Your task to perform on an android device: Show me popular videos on Youtube Image 0: 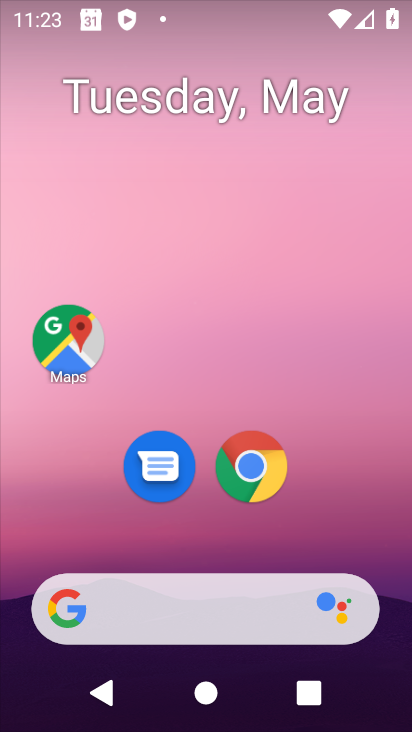
Step 0: drag from (210, 558) to (291, 44)
Your task to perform on an android device: Show me popular videos on Youtube Image 1: 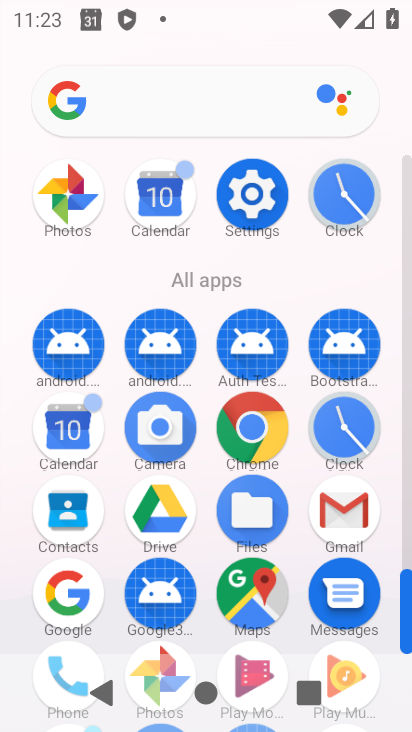
Step 1: drag from (197, 638) to (304, 77)
Your task to perform on an android device: Show me popular videos on Youtube Image 2: 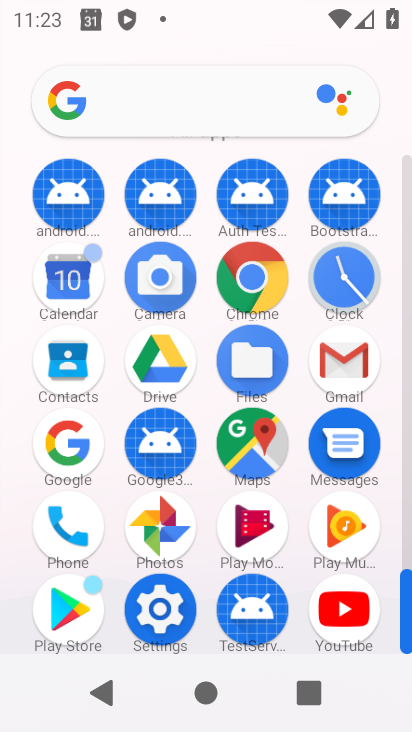
Step 2: click (332, 609)
Your task to perform on an android device: Show me popular videos on Youtube Image 3: 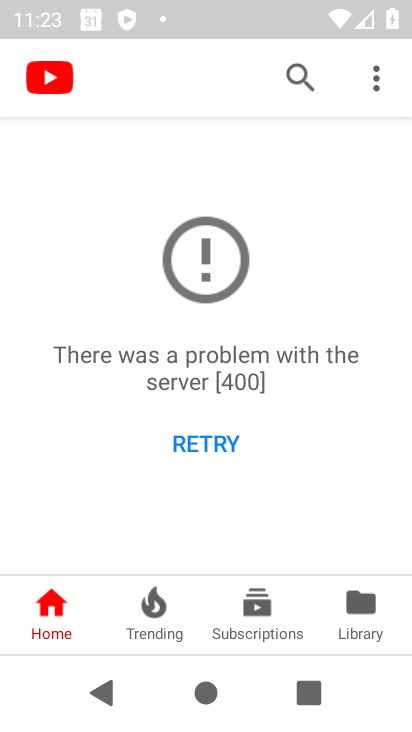
Step 3: task complete